Your task to perform on an android device: What's the weather going to be tomorrow? Image 0: 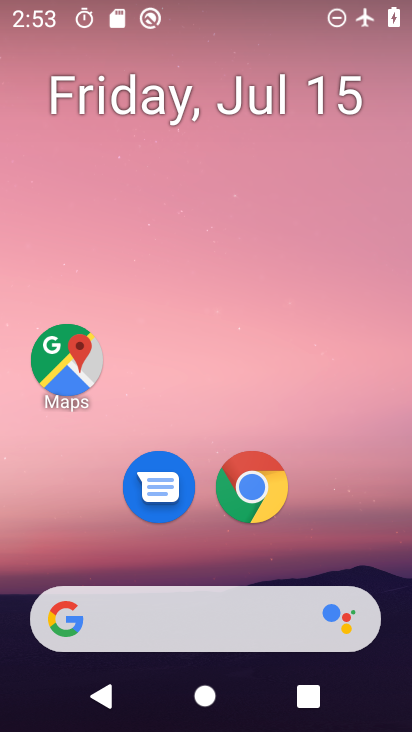
Step 0: drag from (214, 428) to (187, 3)
Your task to perform on an android device: What's the weather going to be tomorrow? Image 1: 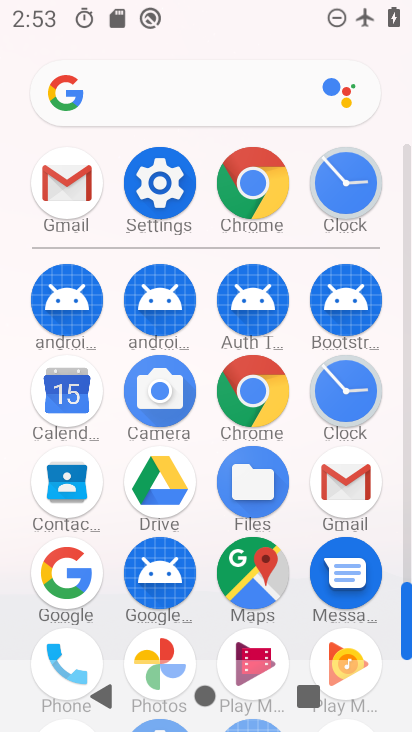
Step 1: drag from (200, 420) to (167, 45)
Your task to perform on an android device: What's the weather going to be tomorrow? Image 2: 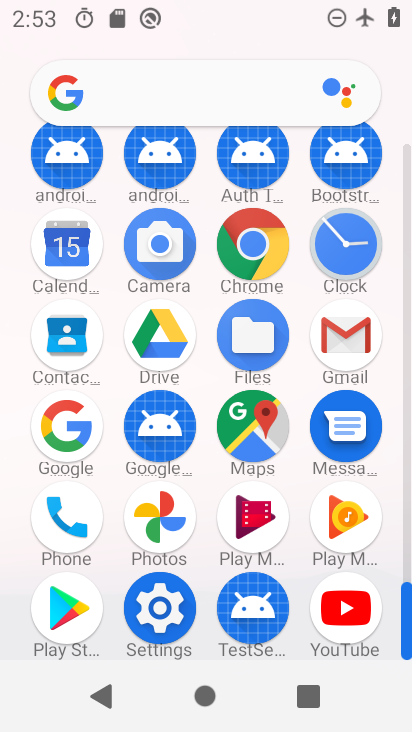
Step 2: click (65, 443)
Your task to perform on an android device: What's the weather going to be tomorrow? Image 3: 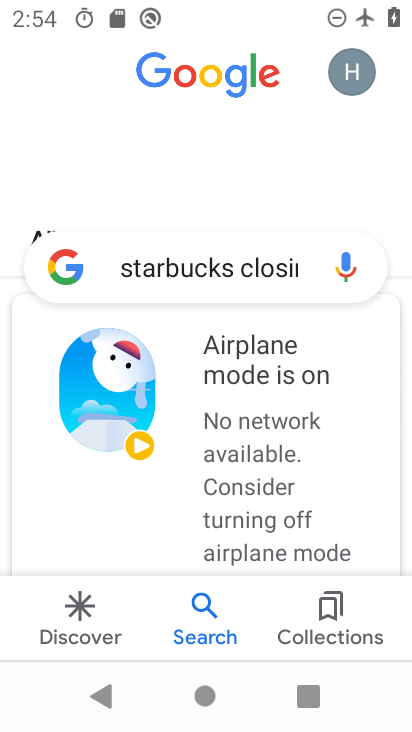
Step 3: click (288, 274)
Your task to perform on an android device: What's the weather going to be tomorrow? Image 4: 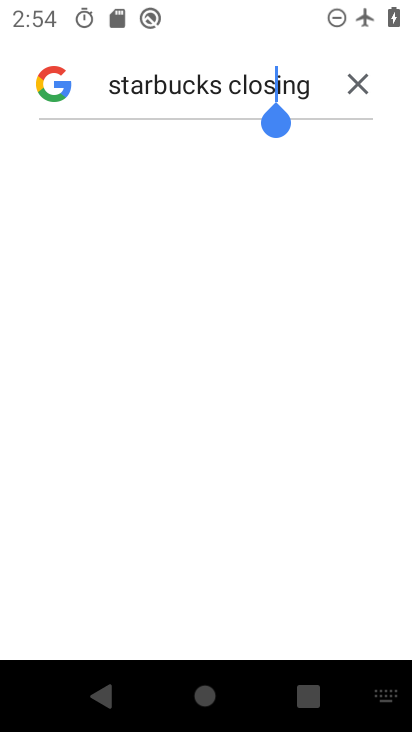
Step 4: click (347, 88)
Your task to perform on an android device: What's the weather going to be tomorrow? Image 5: 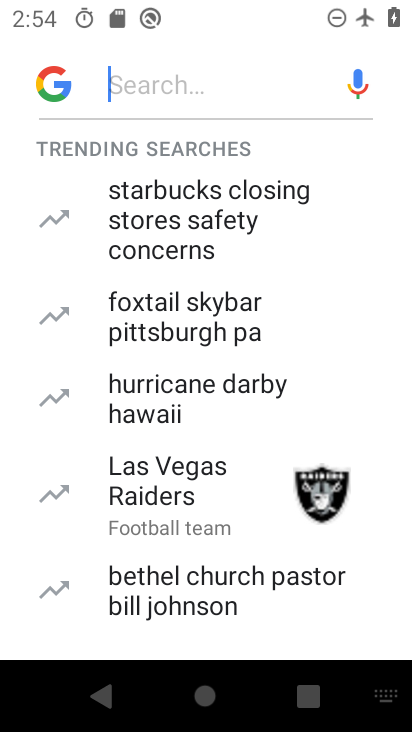
Step 5: type "weather"
Your task to perform on an android device: What's the weather going to be tomorrow? Image 6: 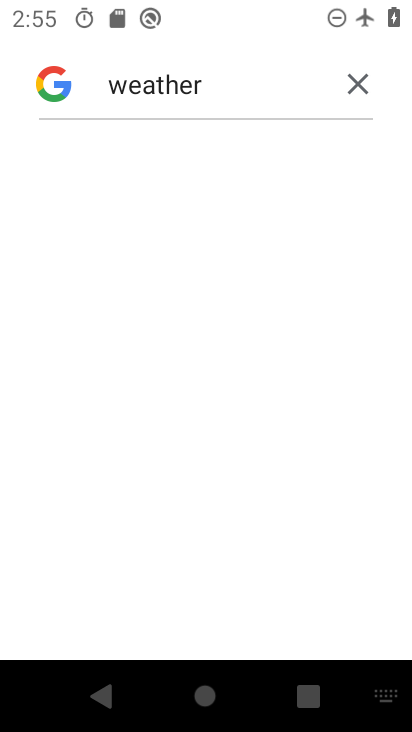
Step 6: task complete